Your task to perform on an android device: toggle location history Image 0: 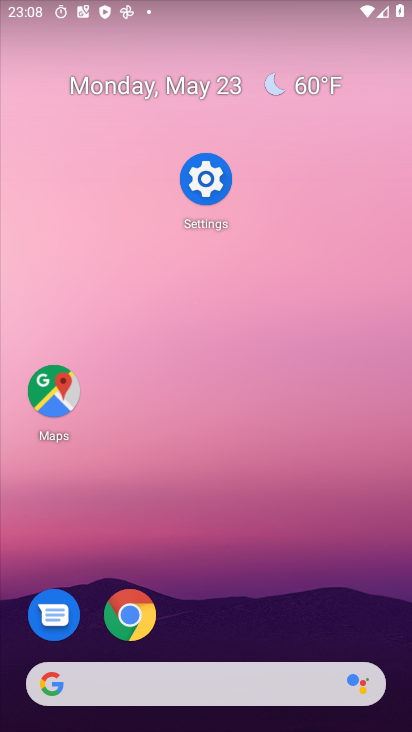
Step 0: drag from (225, 586) to (243, 76)
Your task to perform on an android device: toggle location history Image 1: 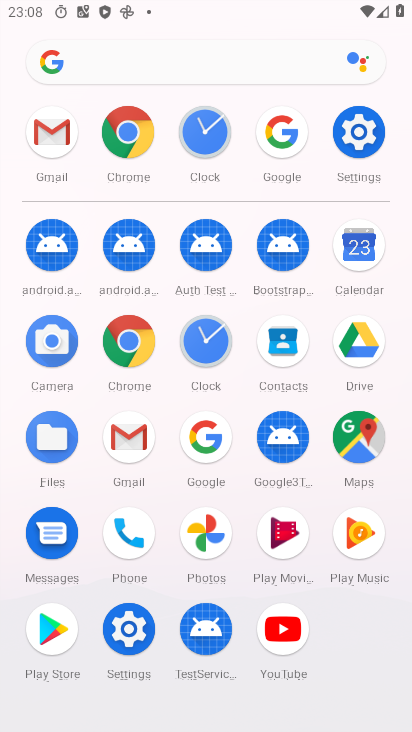
Step 1: click (123, 625)
Your task to perform on an android device: toggle location history Image 2: 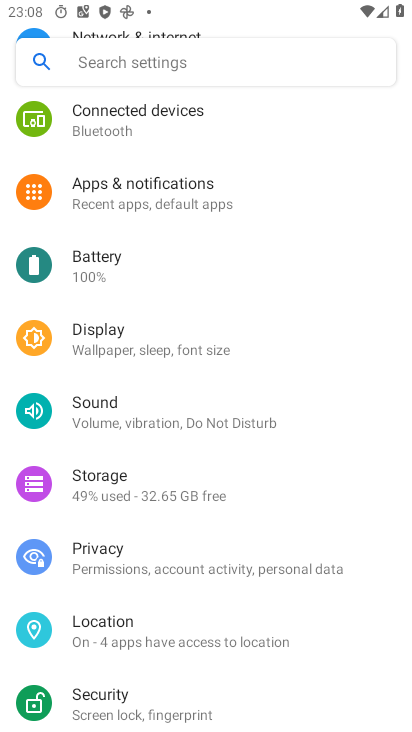
Step 2: click (158, 622)
Your task to perform on an android device: toggle location history Image 3: 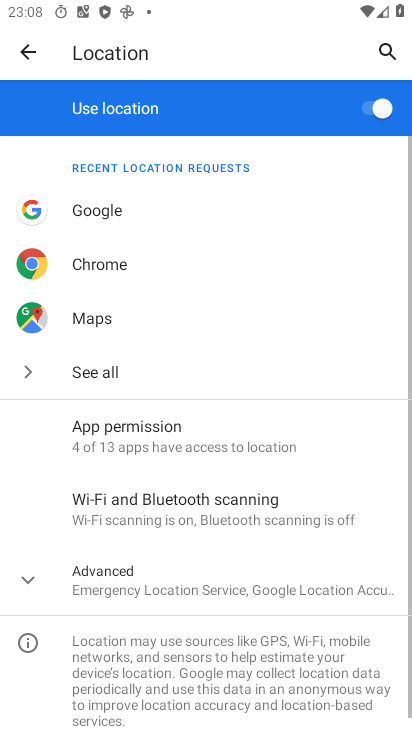
Step 3: click (149, 585)
Your task to perform on an android device: toggle location history Image 4: 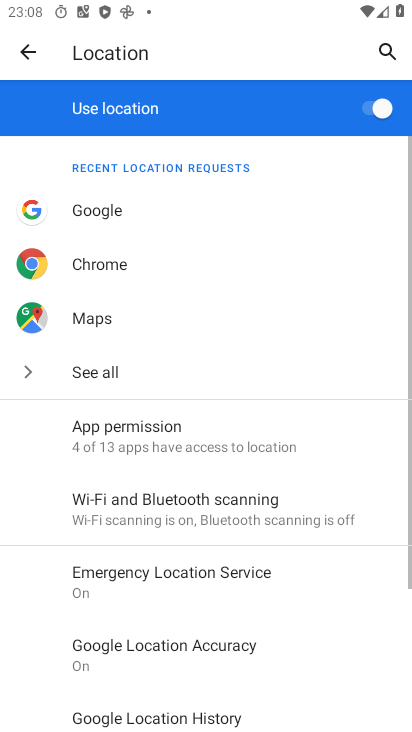
Step 4: drag from (278, 591) to (271, 346)
Your task to perform on an android device: toggle location history Image 5: 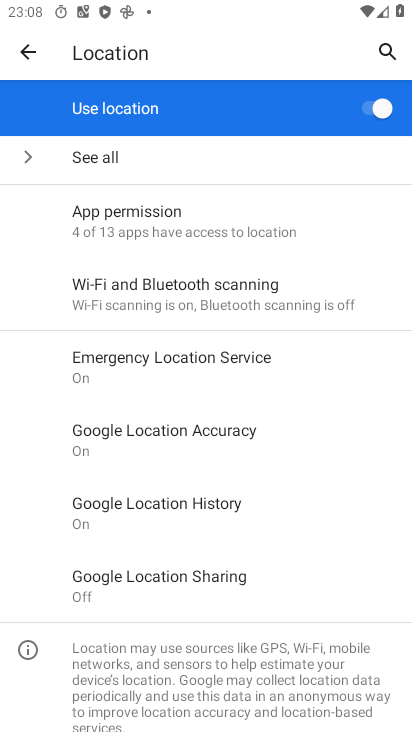
Step 5: click (191, 503)
Your task to perform on an android device: toggle location history Image 6: 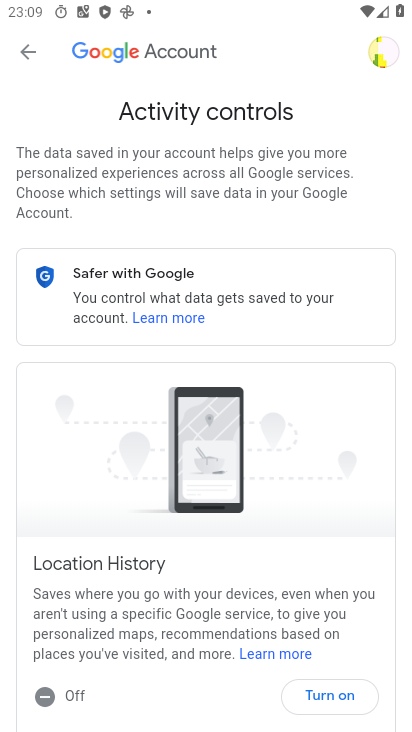
Step 6: drag from (321, 575) to (341, 71)
Your task to perform on an android device: toggle location history Image 7: 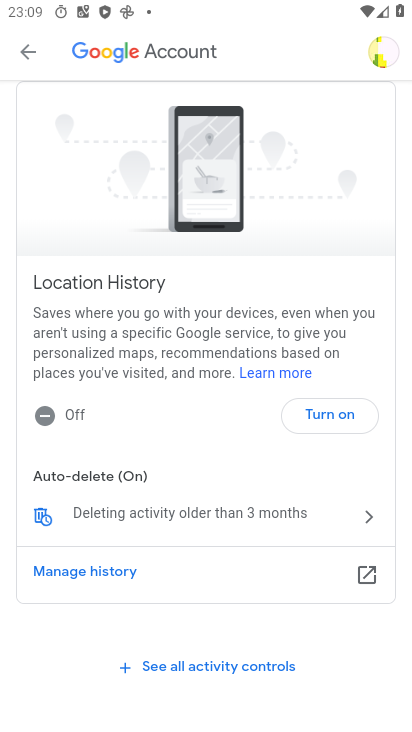
Step 7: click (327, 418)
Your task to perform on an android device: toggle location history Image 8: 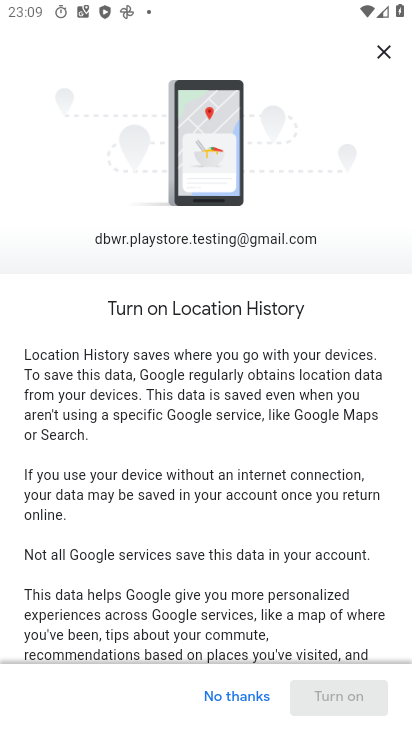
Step 8: drag from (259, 610) to (257, 185)
Your task to perform on an android device: toggle location history Image 9: 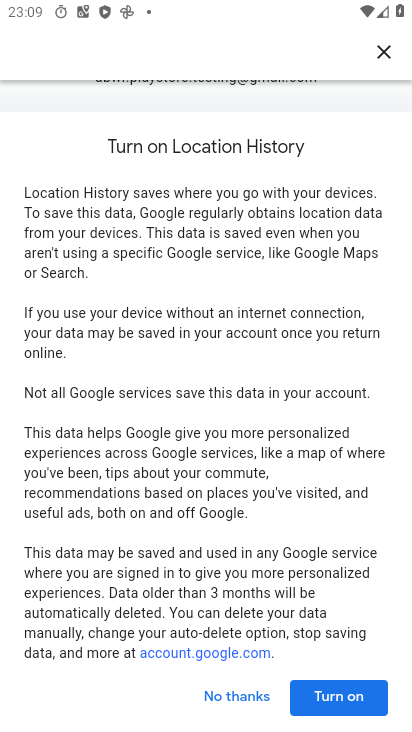
Step 9: click (345, 694)
Your task to perform on an android device: toggle location history Image 10: 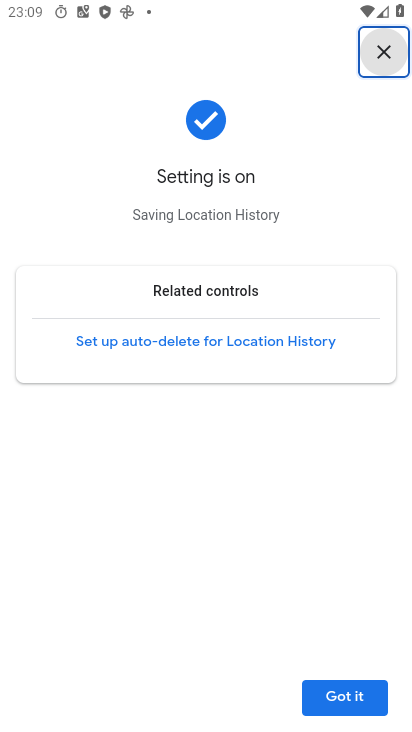
Step 10: click (348, 692)
Your task to perform on an android device: toggle location history Image 11: 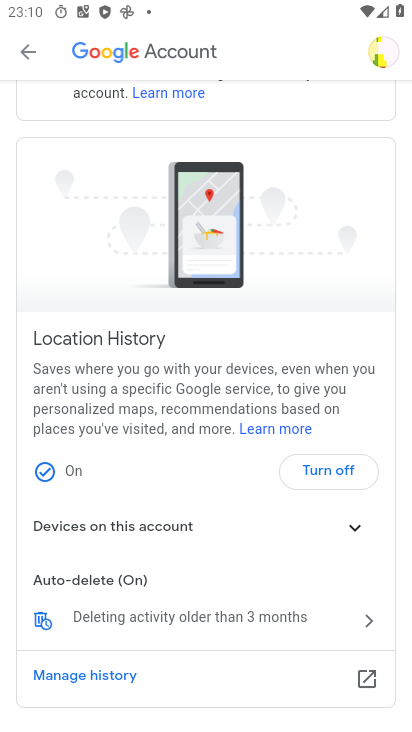
Step 11: task complete